Your task to perform on an android device: create a new album in the google photos Image 0: 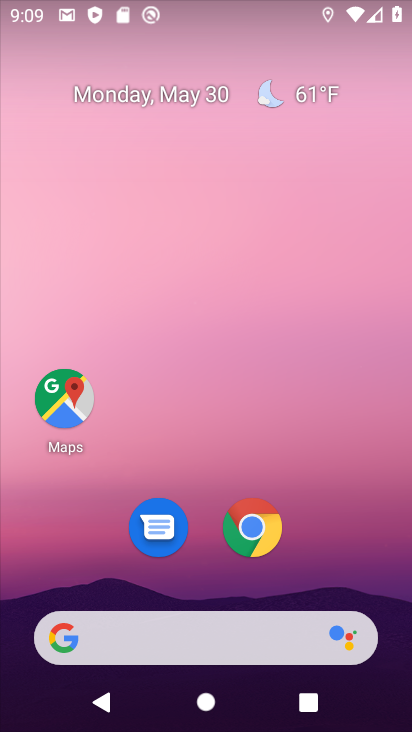
Step 0: drag from (317, 587) to (346, 4)
Your task to perform on an android device: create a new album in the google photos Image 1: 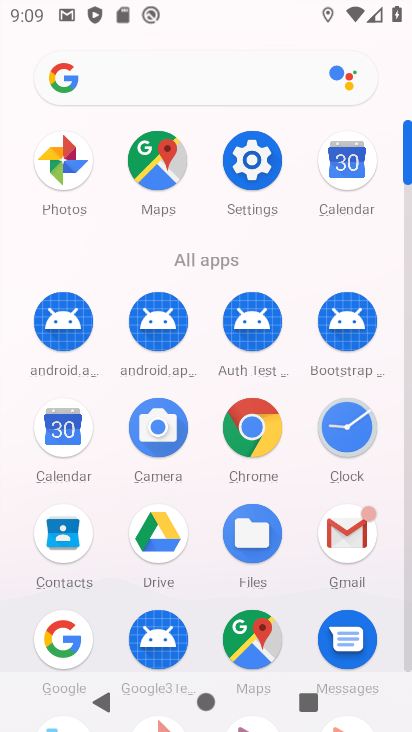
Step 1: click (71, 162)
Your task to perform on an android device: create a new album in the google photos Image 2: 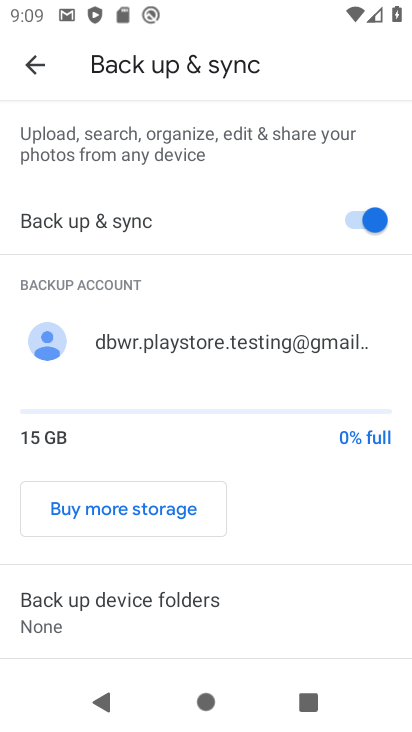
Step 2: click (31, 79)
Your task to perform on an android device: create a new album in the google photos Image 3: 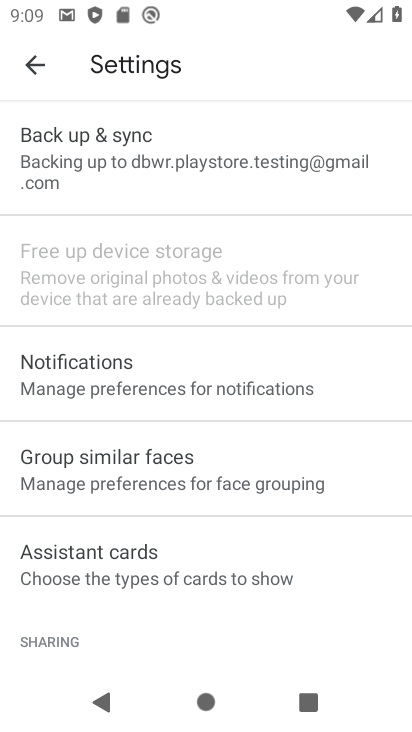
Step 3: click (35, 57)
Your task to perform on an android device: create a new album in the google photos Image 4: 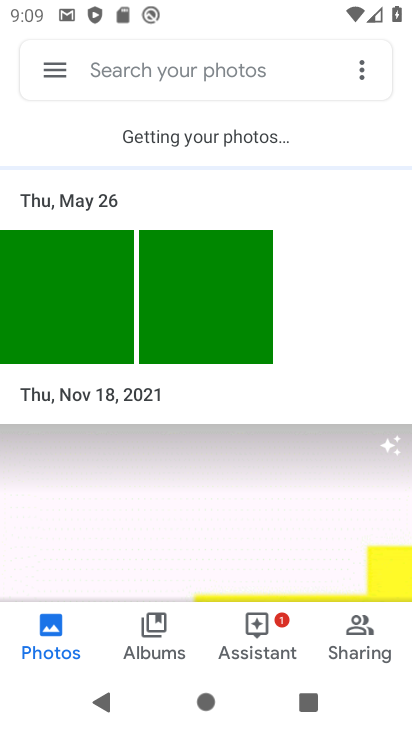
Step 4: click (161, 649)
Your task to perform on an android device: create a new album in the google photos Image 5: 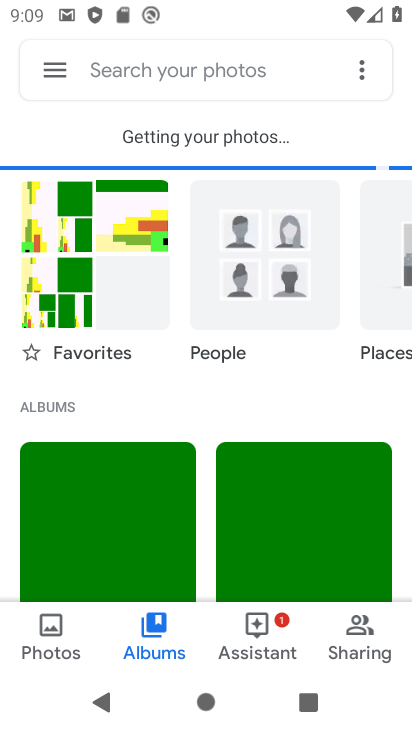
Step 5: click (367, 69)
Your task to perform on an android device: create a new album in the google photos Image 6: 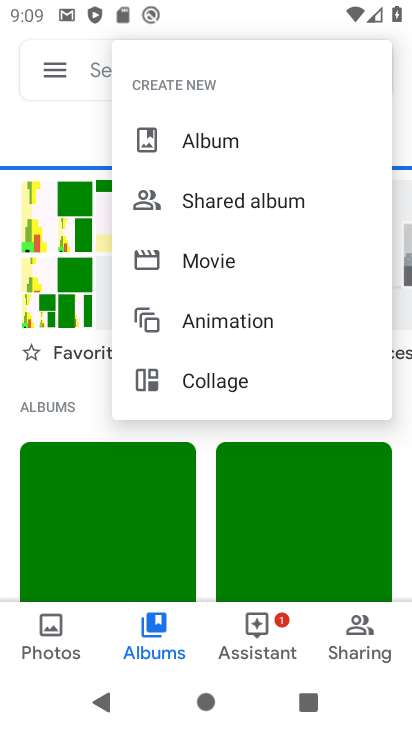
Step 6: click (215, 151)
Your task to perform on an android device: create a new album in the google photos Image 7: 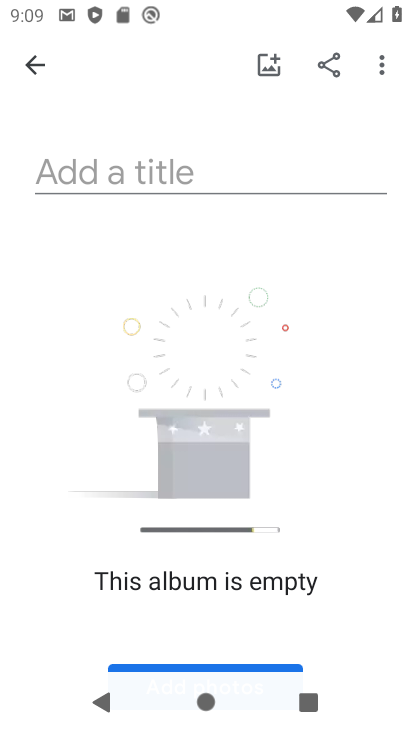
Step 7: click (84, 171)
Your task to perform on an android device: create a new album in the google photos Image 8: 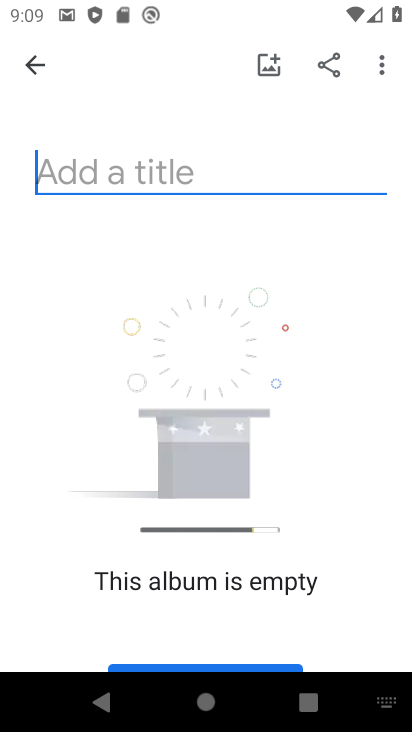
Step 8: type "rtyuiojk"
Your task to perform on an android device: create a new album in the google photos Image 9: 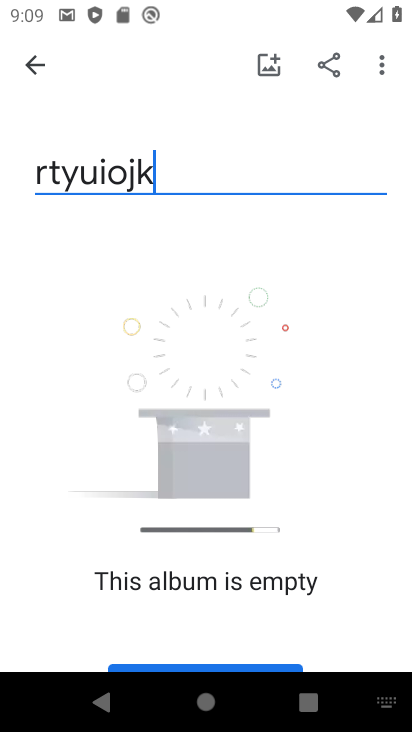
Step 9: click (265, 61)
Your task to perform on an android device: create a new album in the google photos Image 10: 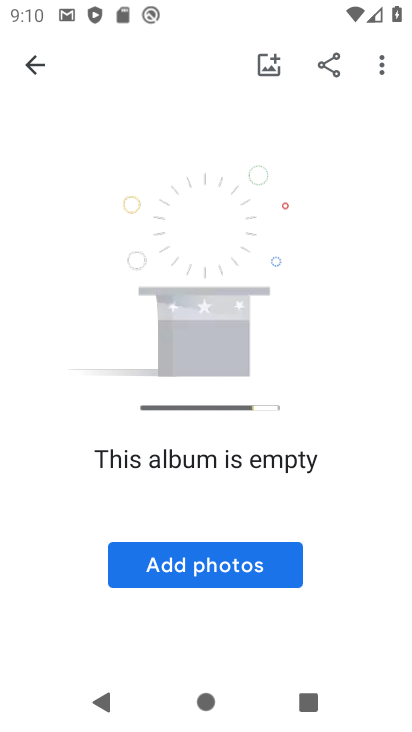
Step 10: click (184, 569)
Your task to perform on an android device: create a new album in the google photos Image 11: 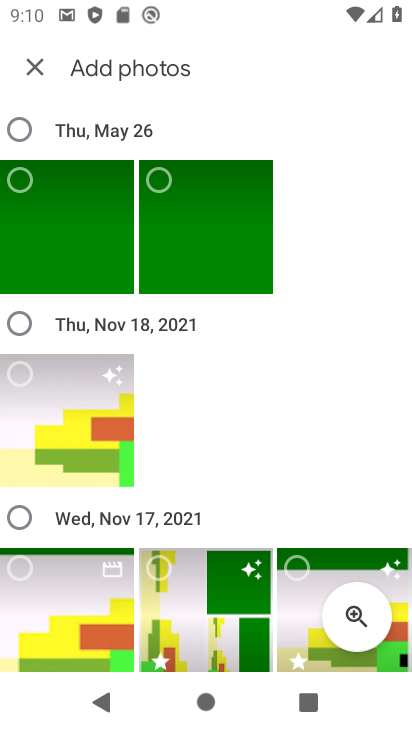
Step 11: click (60, 251)
Your task to perform on an android device: create a new album in the google photos Image 12: 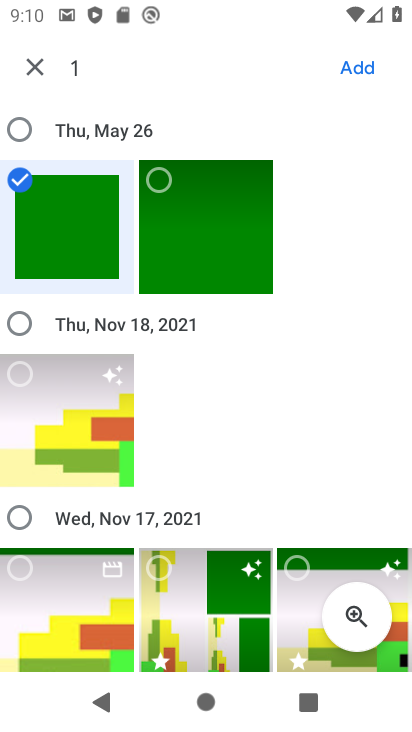
Step 12: click (369, 68)
Your task to perform on an android device: create a new album in the google photos Image 13: 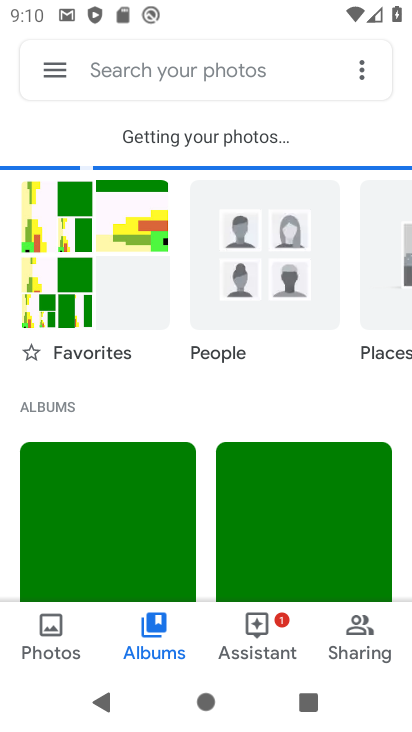
Step 13: task complete